Your task to perform on an android device: Open privacy settings Image 0: 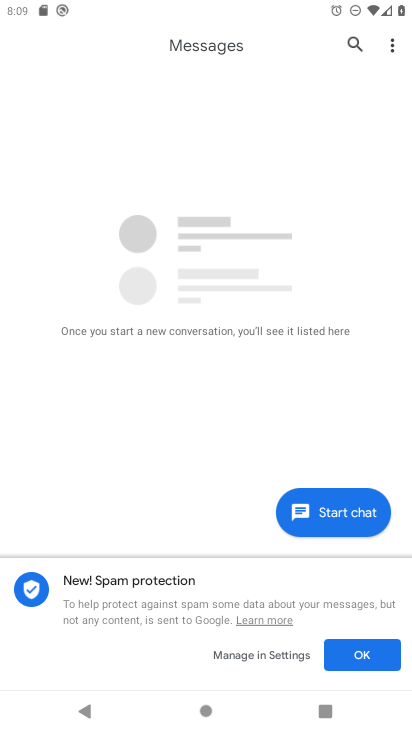
Step 0: press home button
Your task to perform on an android device: Open privacy settings Image 1: 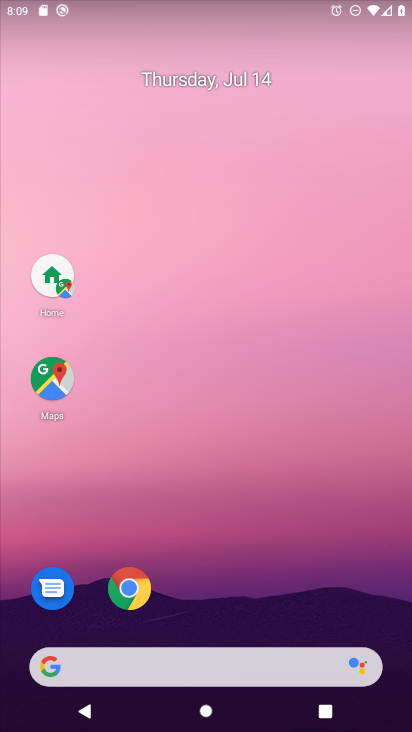
Step 1: drag from (76, 632) to (111, 295)
Your task to perform on an android device: Open privacy settings Image 2: 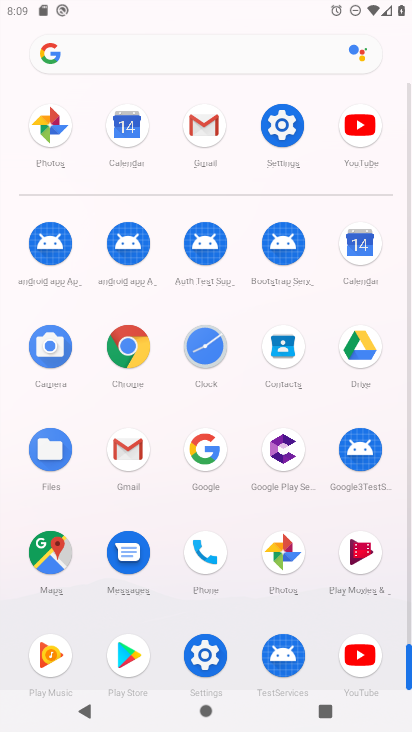
Step 2: click (205, 676)
Your task to perform on an android device: Open privacy settings Image 3: 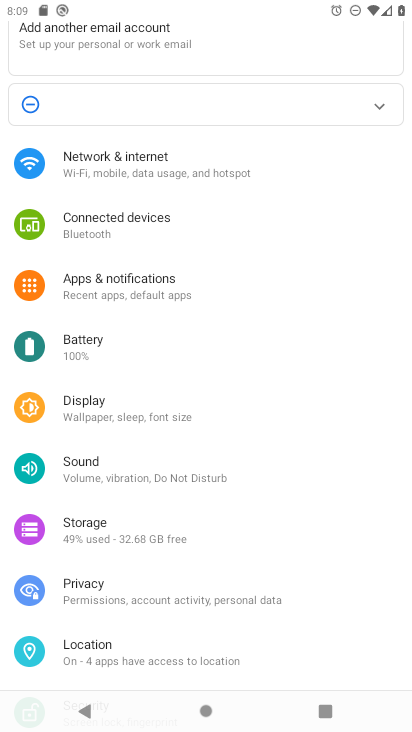
Step 3: click (116, 579)
Your task to perform on an android device: Open privacy settings Image 4: 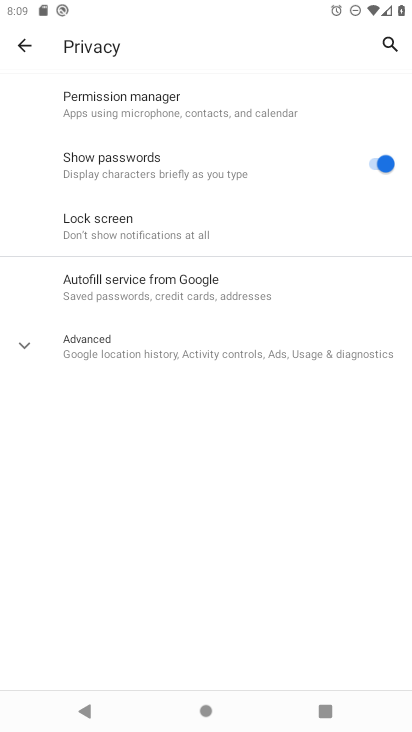
Step 4: task complete